Your task to perform on an android device: see tabs open on other devices in the chrome app Image 0: 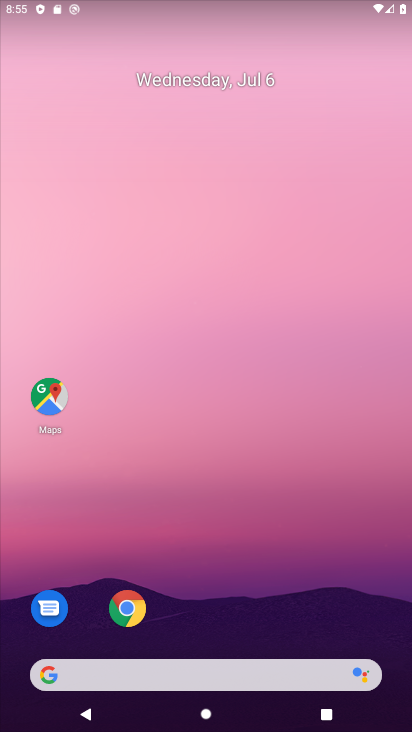
Step 0: drag from (280, 640) to (120, 65)
Your task to perform on an android device: see tabs open on other devices in the chrome app Image 1: 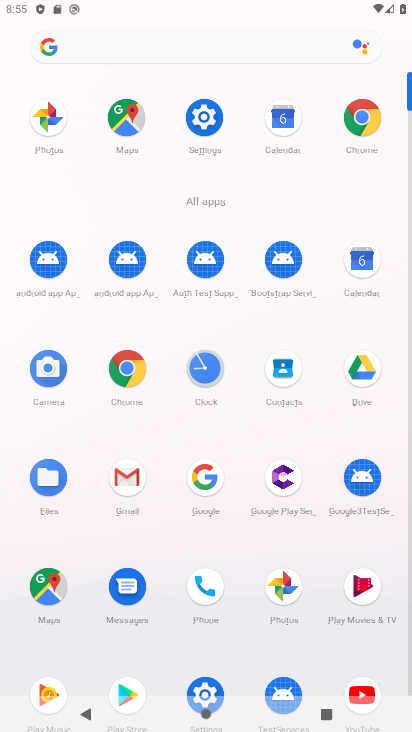
Step 1: click (372, 113)
Your task to perform on an android device: see tabs open on other devices in the chrome app Image 2: 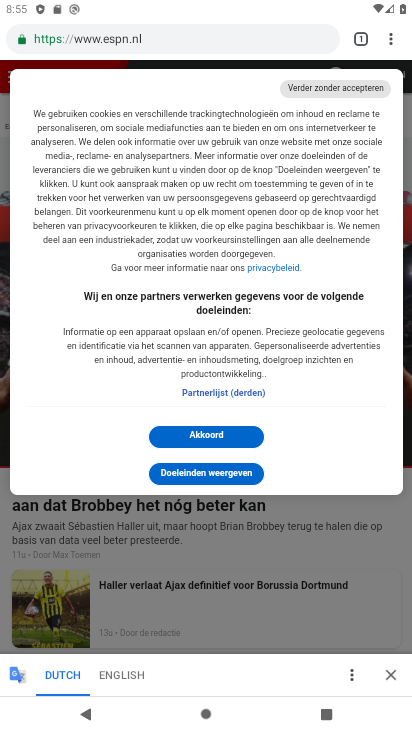
Step 2: click (388, 39)
Your task to perform on an android device: see tabs open on other devices in the chrome app Image 3: 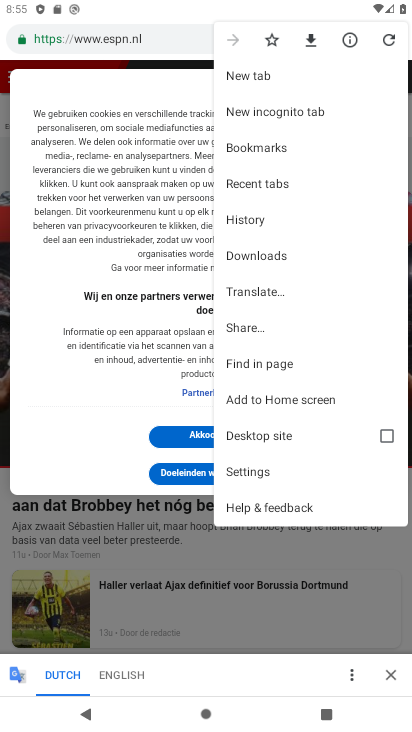
Step 3: click (282, 193)
Your task to perform on an android device: see tabs open on other devices in the chrome app Image 4: 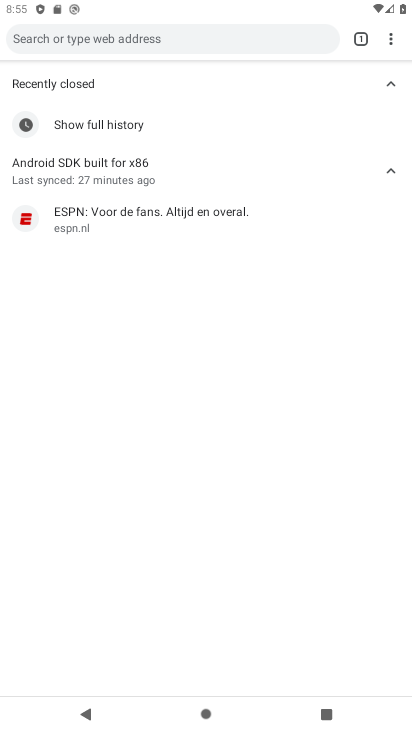
Step 4: task complete